Your task to perform on an android device: open a bookmark in the chrome app Image 0: 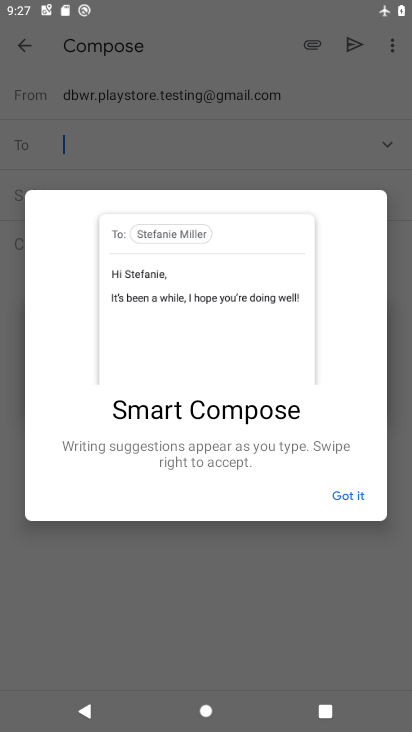
Step 0: press home button
Your task to perform on an android device: open a bookmark in the chrome app Image 1: 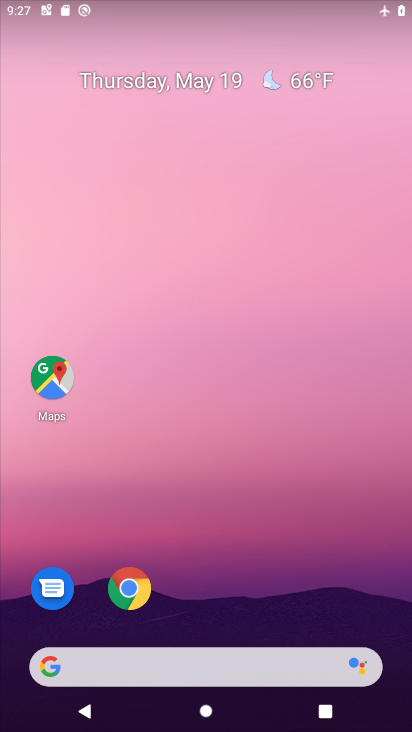
Step 1: drag from (373, 601) to (361, 180)
Your task to perform on an android device: open a bookmark in the chrome app Image 2: 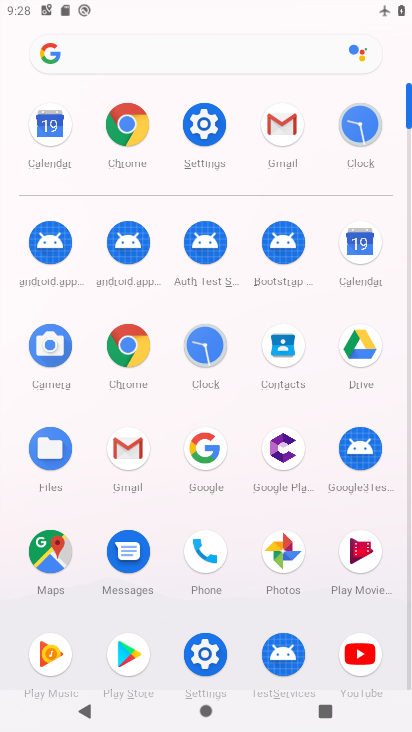
Step 2: click (136, 354)
Your task to perform on an android device: open a bookmark in the chrome app Image 3: 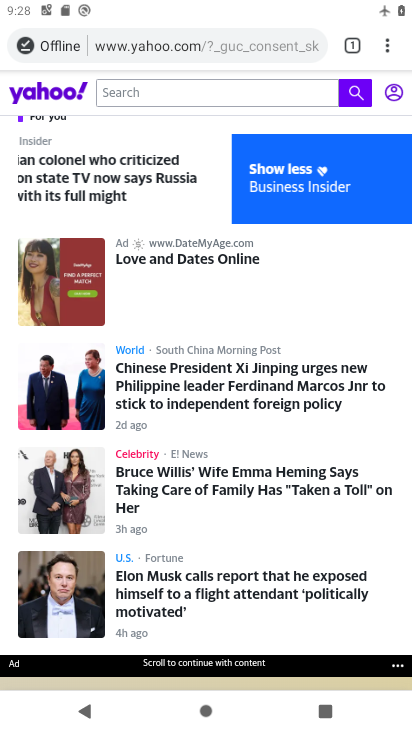
Step 3: click (387, 53)
Your task to perform on an android device: open a bookmark in the chrome app Image 4: 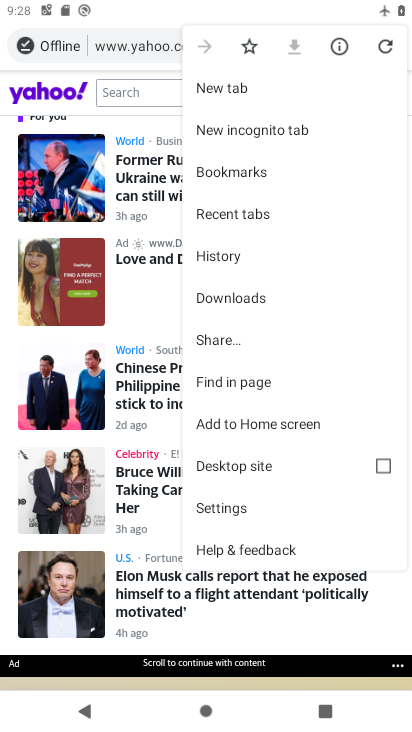
Step 4: drag from (334, 488) to (328, 355)
Your task to perform on an android device: open a bookmark in the chrome app Image 5: 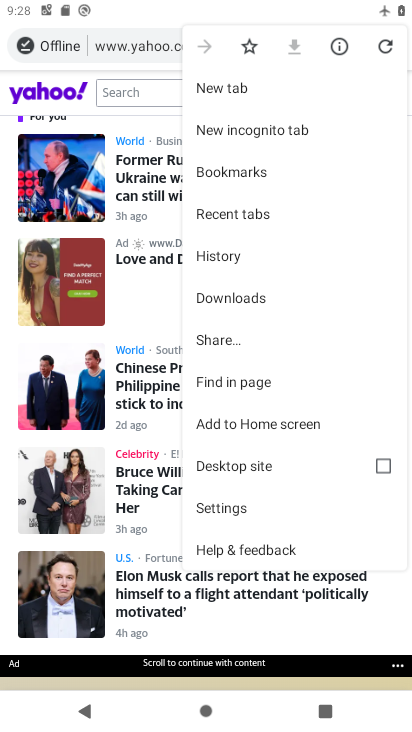
Step 5: drag from (329, 265) to (332, 434)
Your task to perform on an android device: open a bookmark in the chrome app Image 6: 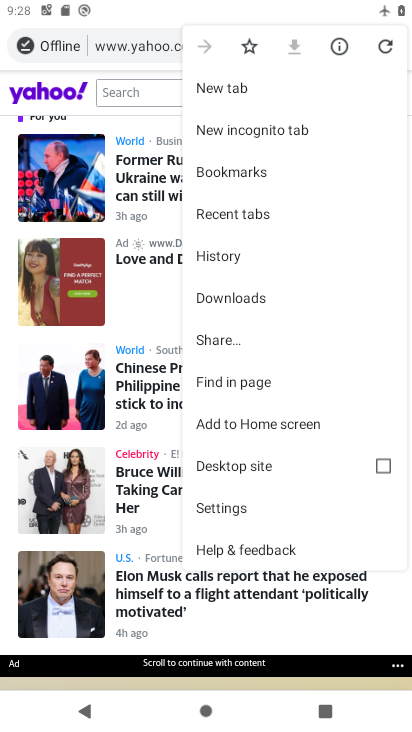
Step 6: click (269, 167)
Your task to perform on an android device: open a bookmark in the chrome app Image 7: 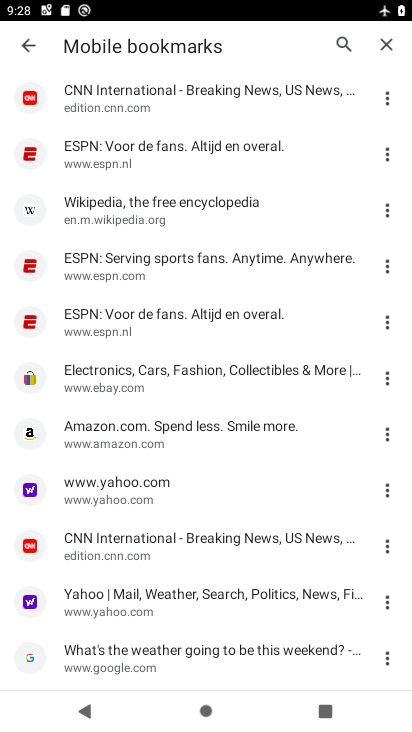
Step 7: click (226, 417)
Your task to perform on an android device: open a bookmark in the chrome app Image 8: 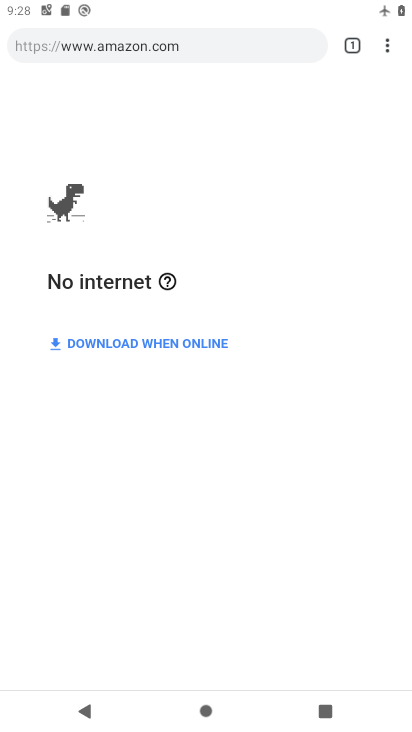
Step 8: task complete